Your task to perform on an android device: Open accessibility settings Image 0: 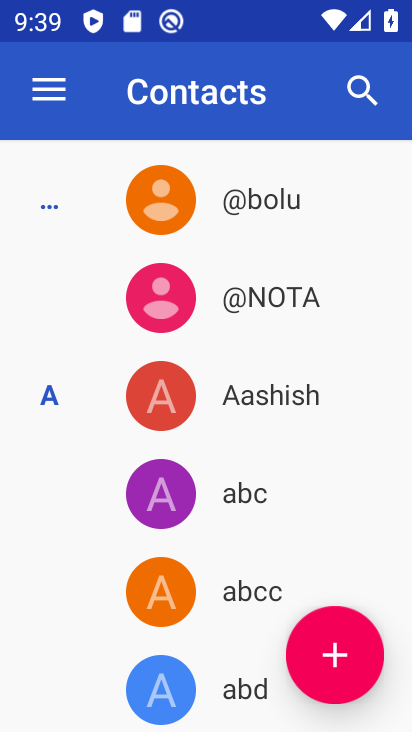
Step 0: press home button
Your task to perform on an android device: Open accessibility settings Image 1: 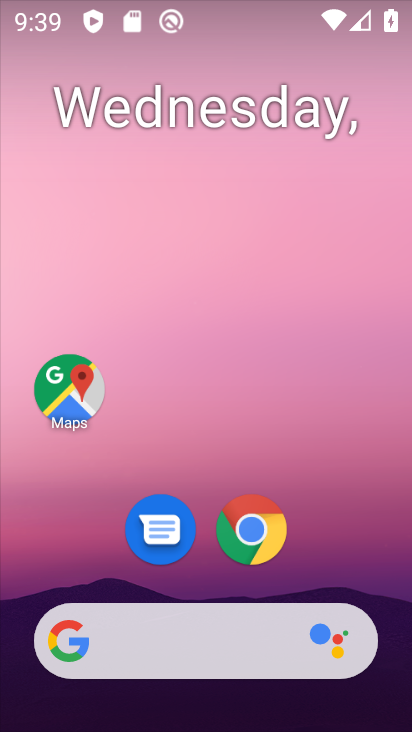
Step 1: drag from (83, 588) to (267, 67)
Your task to perform on an android device: Open accessibility settings Image 2: 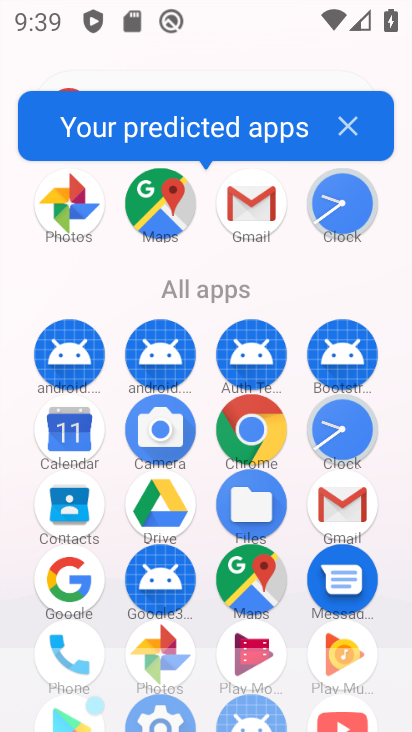
Step 2: drag from (151, 617) to (245, 271)
Your task to perform on an android device: Open accessibility settings Image 3: 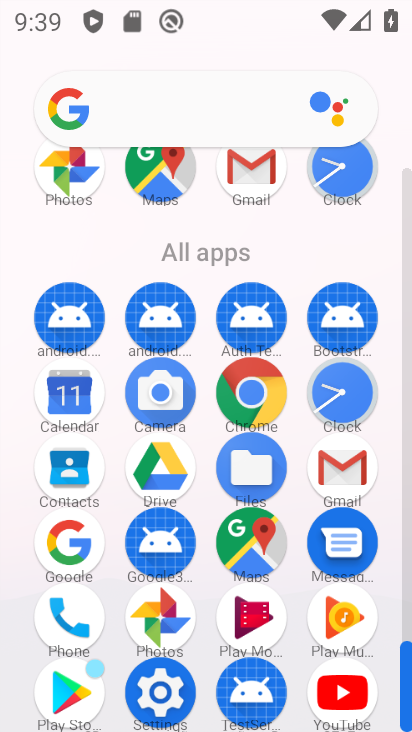
Step 3: click (155, 694)
Your task to perform on an android device: Open accessibility settings Image 4: 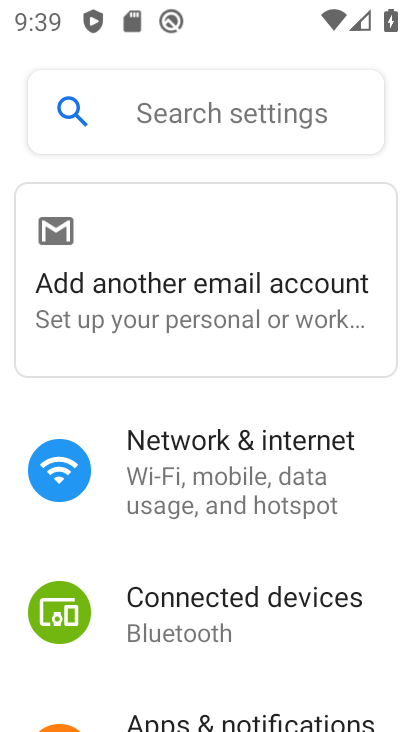
Step 4: drag from (235, 648) to (334, 163)
Your task to perform on an android device: Open accessibility settings Image 5: 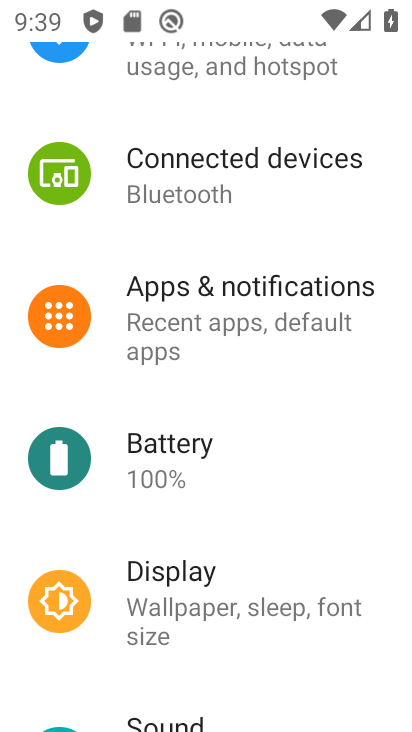
Step 5: drag from (217, 617) to (301, 167)
Your task to perform on an android device: Open accessibility settings Image 6: 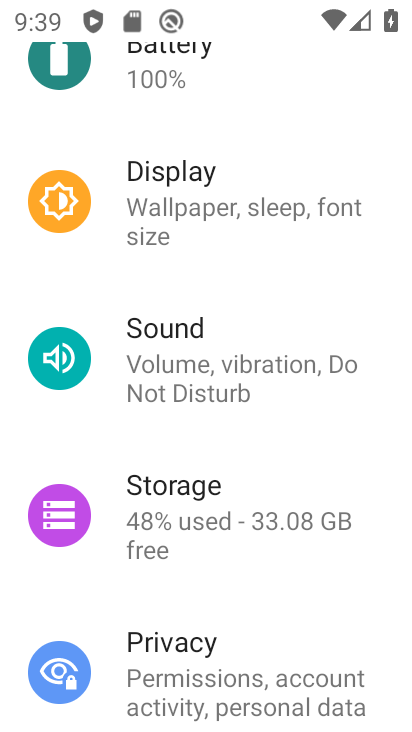
Step 6: drag from (177, 631) to (301, 234)
Your task to perform on an android device: Open accessibility settings Image 7: 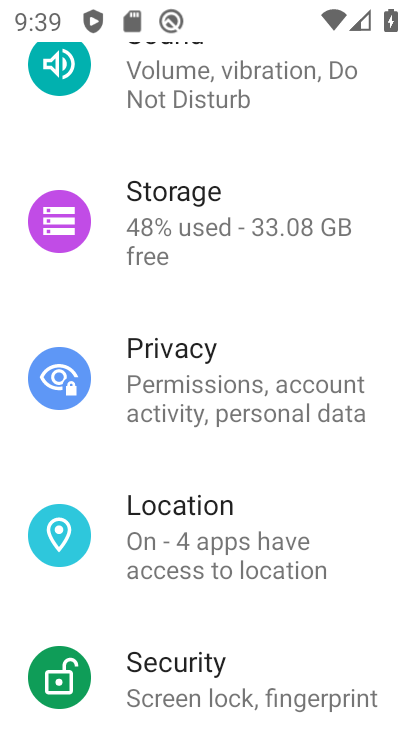
Step 7: drag from (167, 619) to (273, 292)
Your task to perform on an android device: Open accessibility settings Image 8: 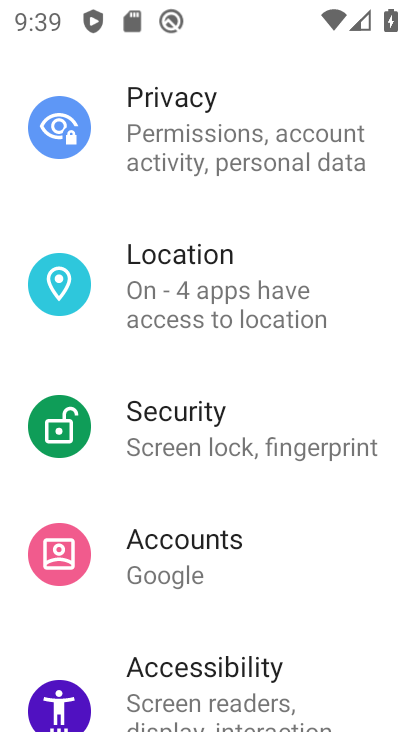
Step 8: click (170, 663)
Your task to perform on an android device: Open accessibility settings Image 9: 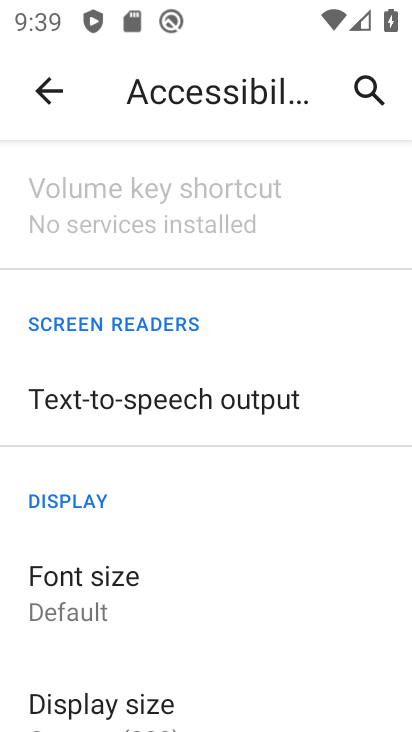
Step 9: task complete